Your task to perform on an android device: Open Google Maps Image 0: 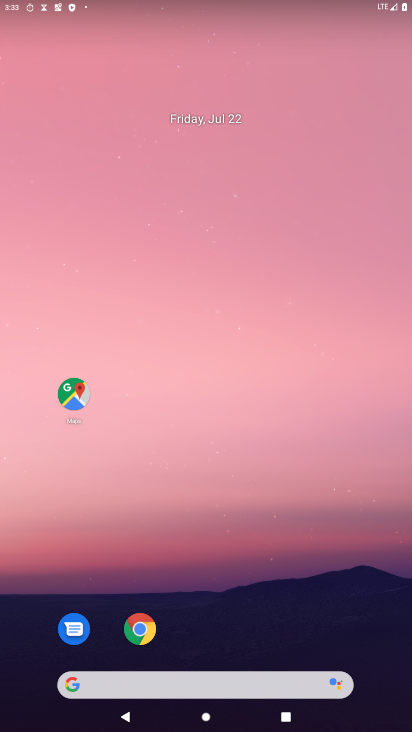
Step 0: drag from (252, 639) to (371, 6)
Your task to perform on an android device: Open Google Maps Image 1: 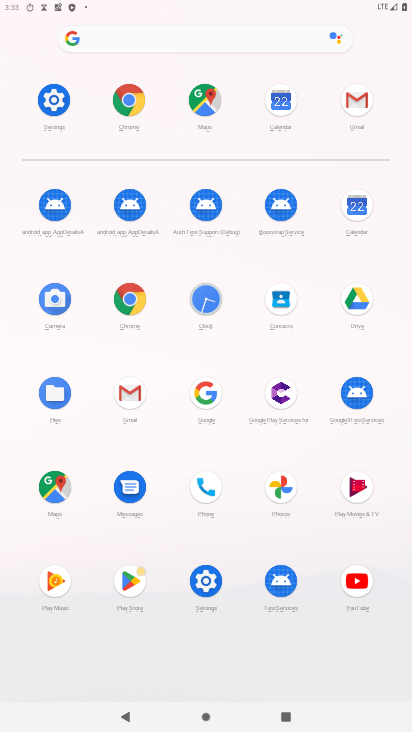
Step 1: click (56, 489)
Your task to perform on an android device: Open Google Maps Image 2: 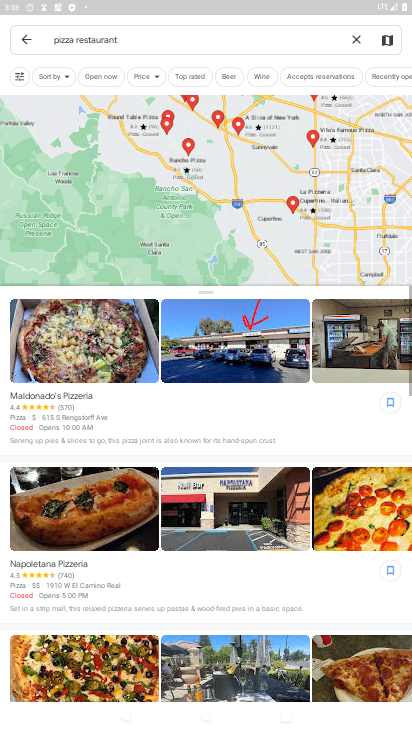
Step 2: task complete